Your task to perform on an android device: turn vacation reply on in the gmail app Image 0: 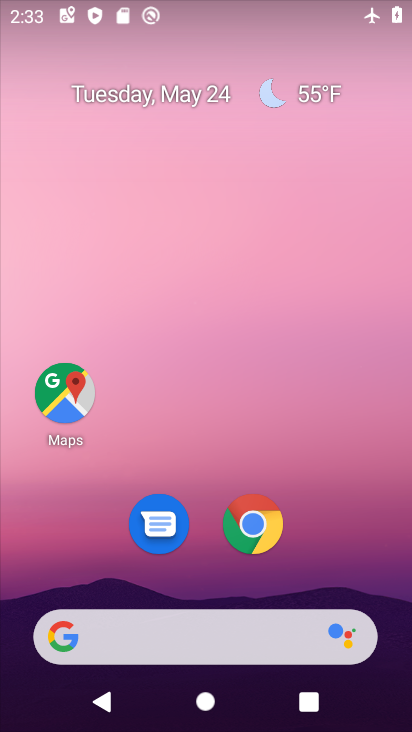
Step 0: drag from (282, 394) to (313, 26)
Your task to perform on an android device: turn vacation reply on in the gmail app Image 1: 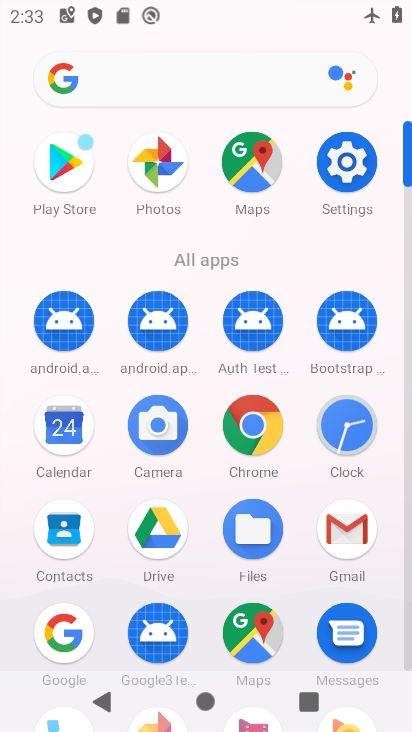
Step 1: click (336, 522)
Your task to perform on an android device: turn vacation reply on in the gmail app Image 2: 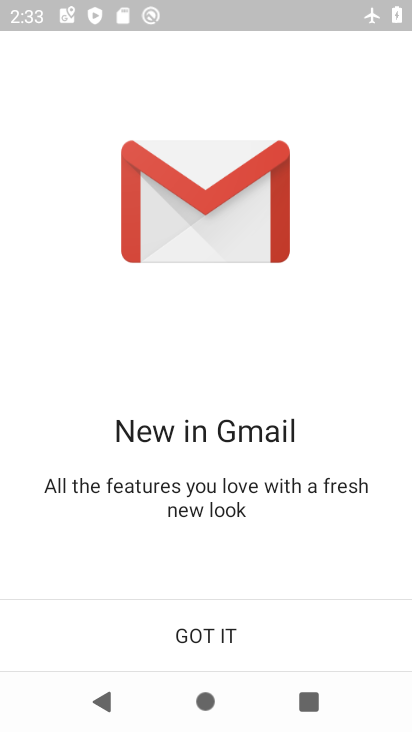
Step 2: click (230, 625)
Your task to perform on an android device: turn vacation reply on in the gmail app Image 3: 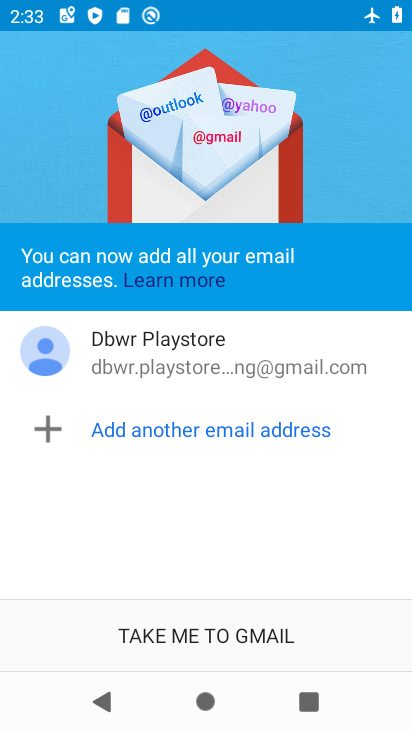
Step 3: click (230, 625)
Your task to perform on an android device: turn vacation reply on in the gmail app Image 4: 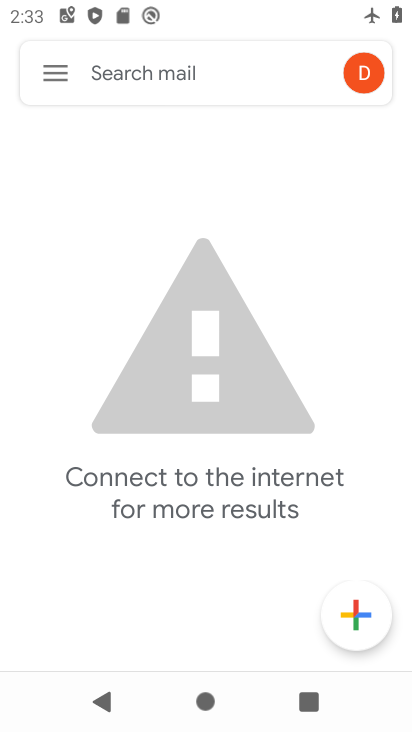
Step 4: click (62, 67)
Your task to perform on an android device: turn vacation reply on in the gmail app Image 5: 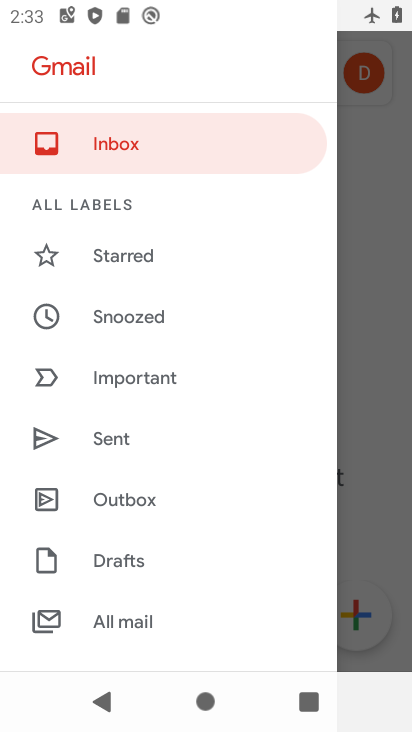
Step 5: drag from (146, 532) to (132, 198)
Your task to perform on an android device: turn vacation reply on in the gmail app Image 6: 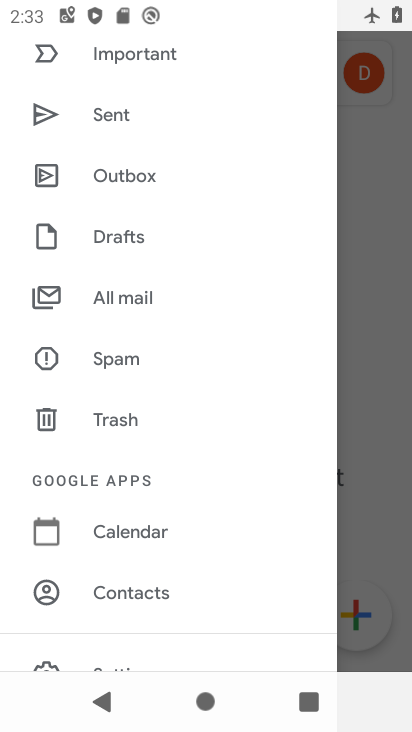
Step 6: drag from (161, 511) to (175, 255)
Your task to perform on an android device: turn vacation reply on in the gmail app Image 7: 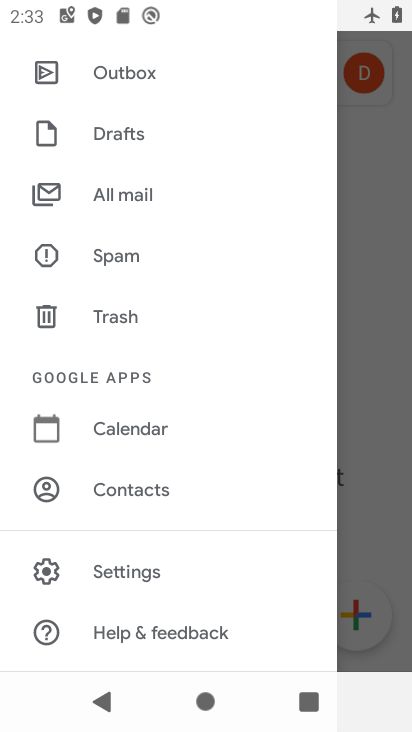
Step 7: click (148, 568)
Your task to perform on an android device: turn vacation reply on in the gmail app Image 8: 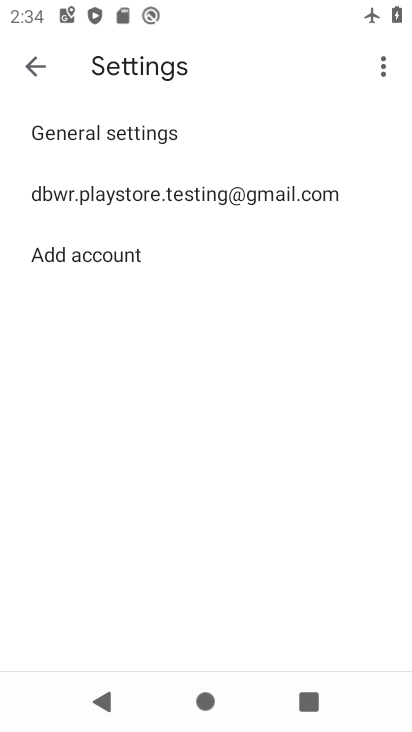
Step 8: click (254, 188)
Your task to perform on an android device: turn vacation reply on in the gmail app Image 9: 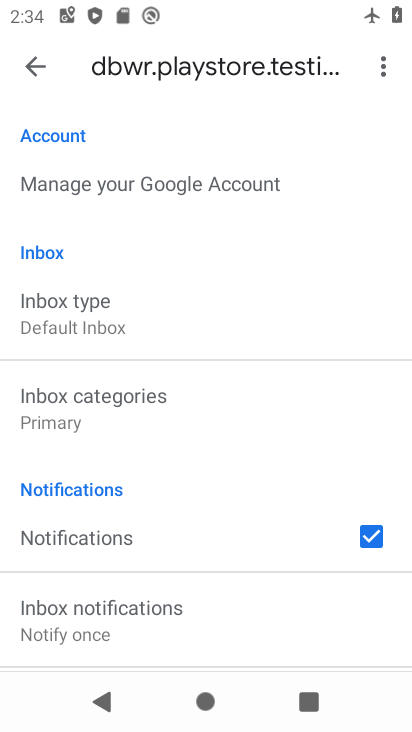
Step 9: drag from (214, 493) to (240, 166)
Your task to perform on an android device: turn vacation reply on in the gmail app Image 10: 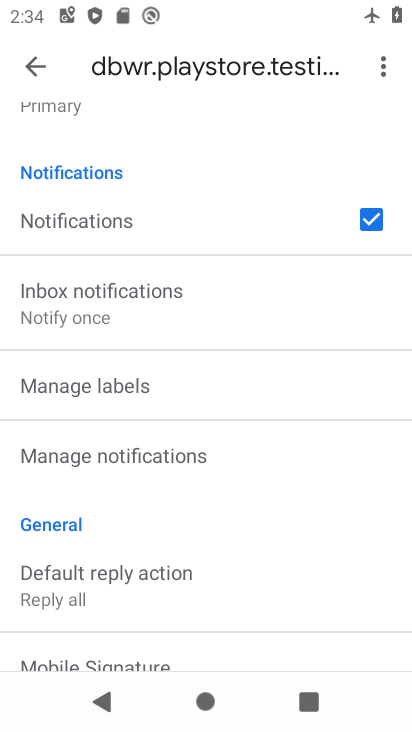
Step 10: drag from (212, 500) to (254, 203)
Your task to perform on an android device: turn vacation reply on in the gmail app Image 11: 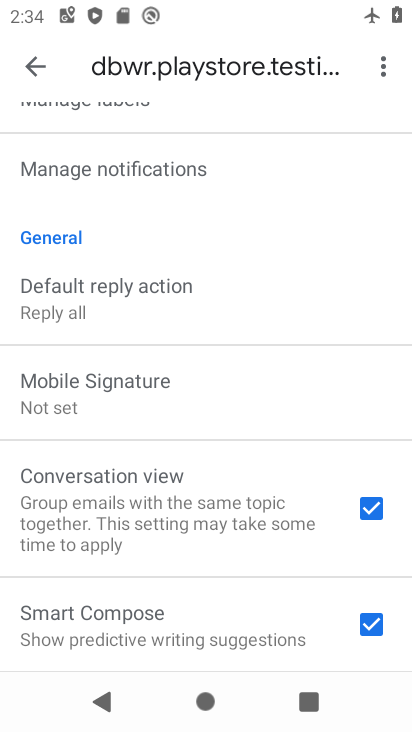
Step 11: drag from (207, 538) to (252, 244)
Your task to perform on an android device: turn vacation reply on in the gmail app Image 12: 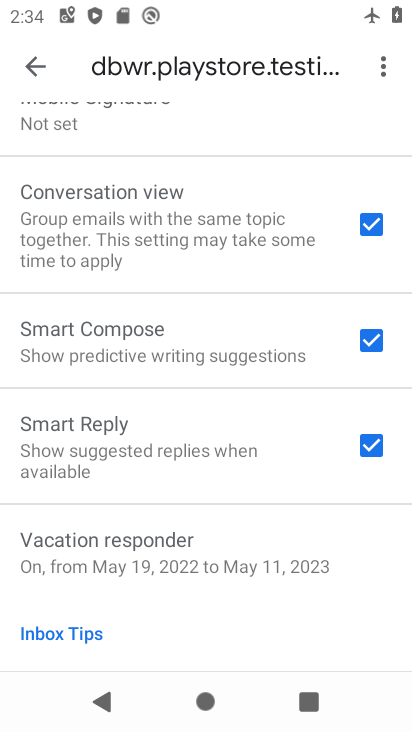
Step 12: click (199, 540)
Your task to perform on an android device: turn vacation reply on in the gmail app Image 13: 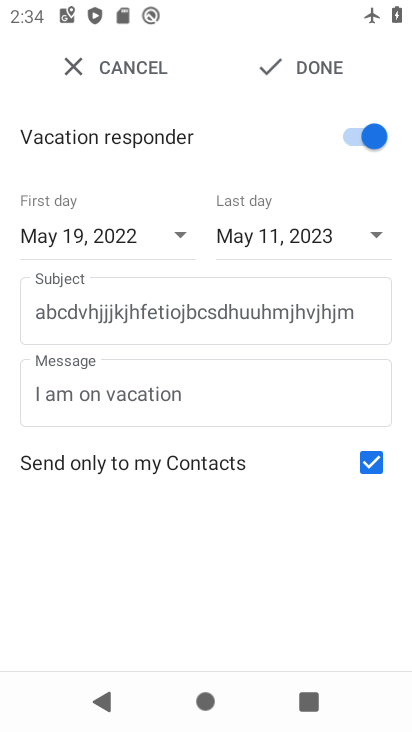
Step 13: task complete